Your task to perform on an android device: Search for hotels in Seattle Image 0: 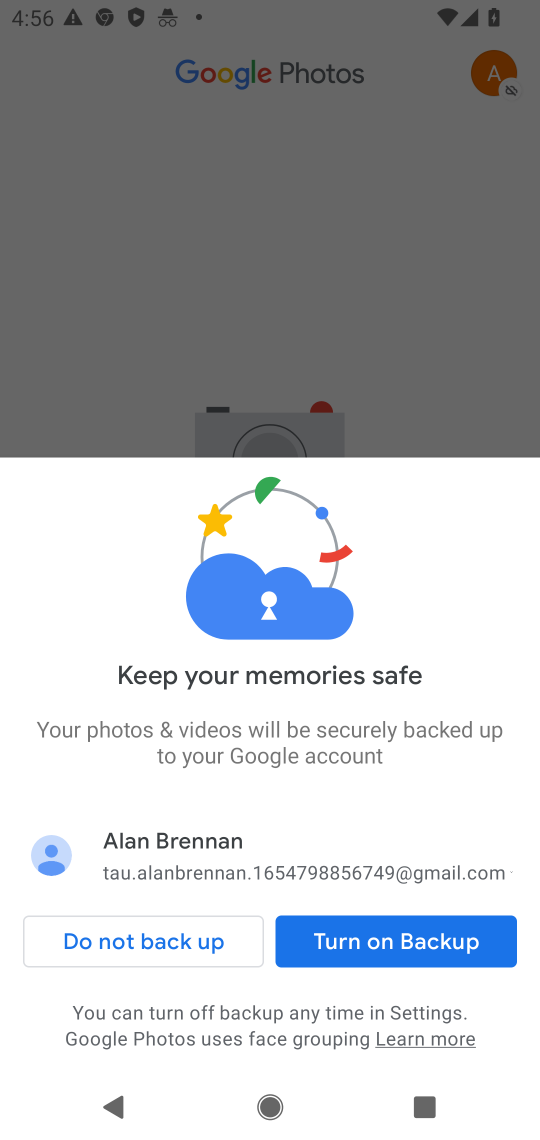
Step 0: press home button
Your task to perform on an android device: Search for hotels in Seattle Image 1: 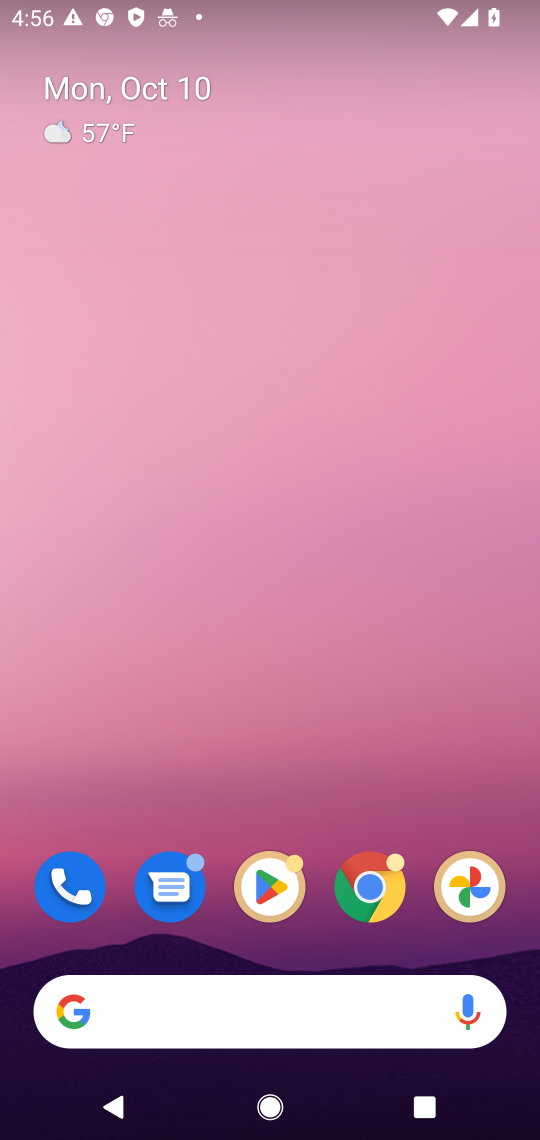
Step 1: click (389, 890)
Your task to perform on an android device: Search for hotels in Seattle Image 2: 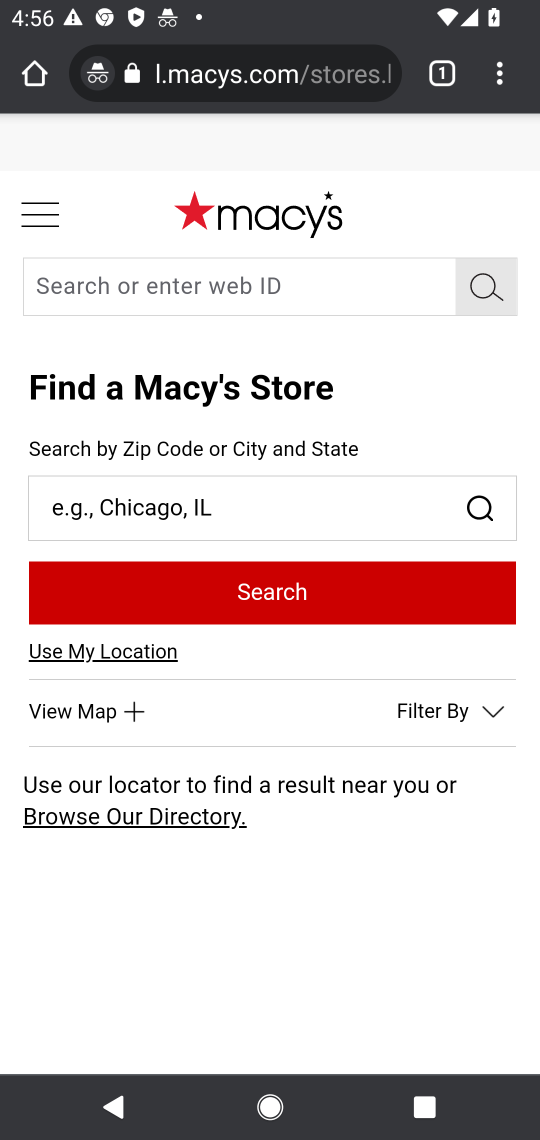
Step 2: click (201, 76)
Your task to perform on an android device: Search for hotels in Seattle Image 3: 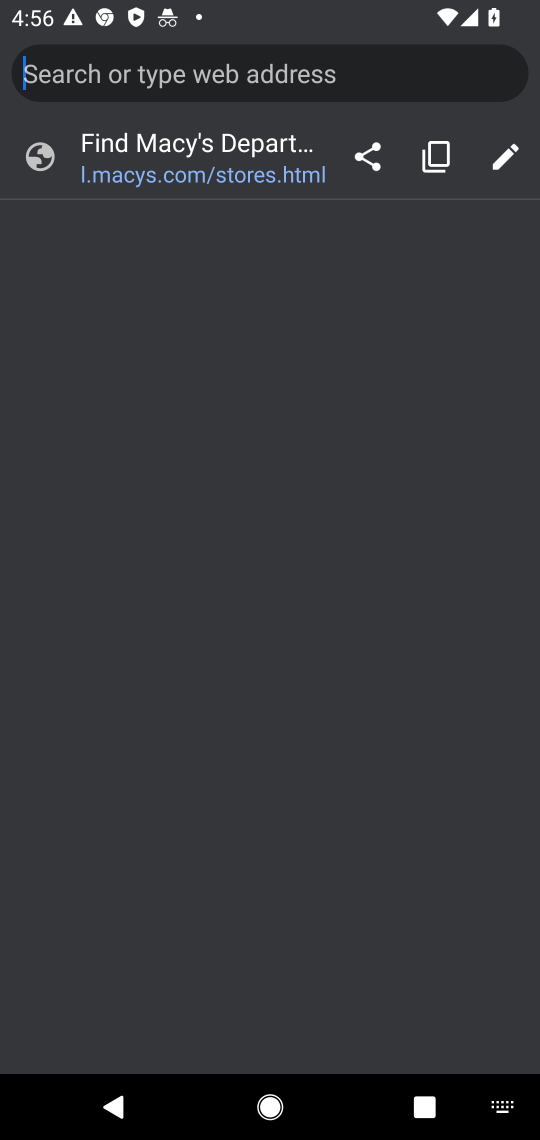
Step 3: type "hotels in seattle"
Your task to perform on an android device: Search for hotels in Seattle Image 4: 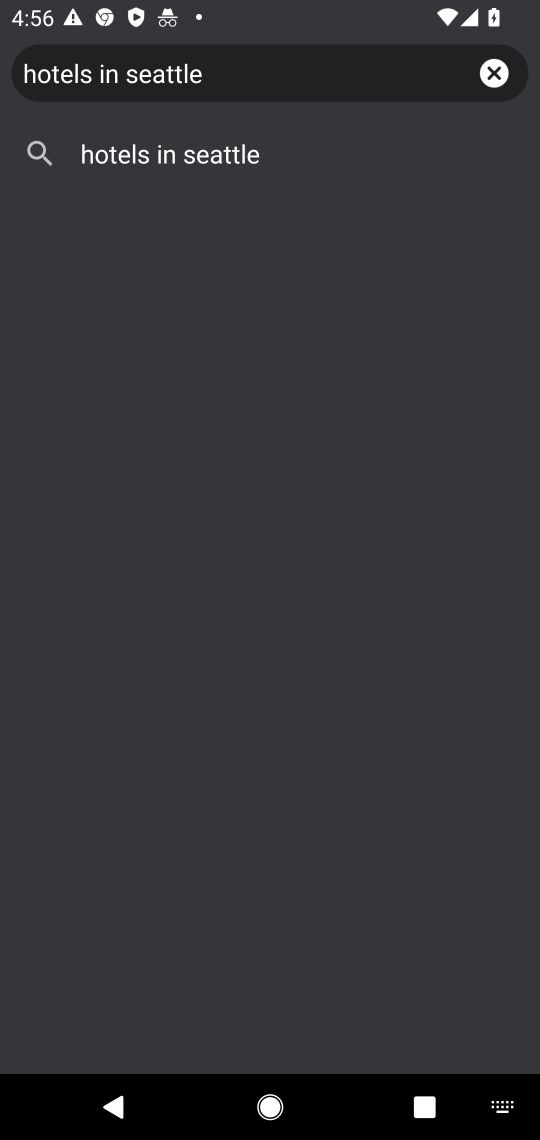
Step 4: click (320, 150)
Your task to perform on an android device: Search for hotels in Seattle Image 5: 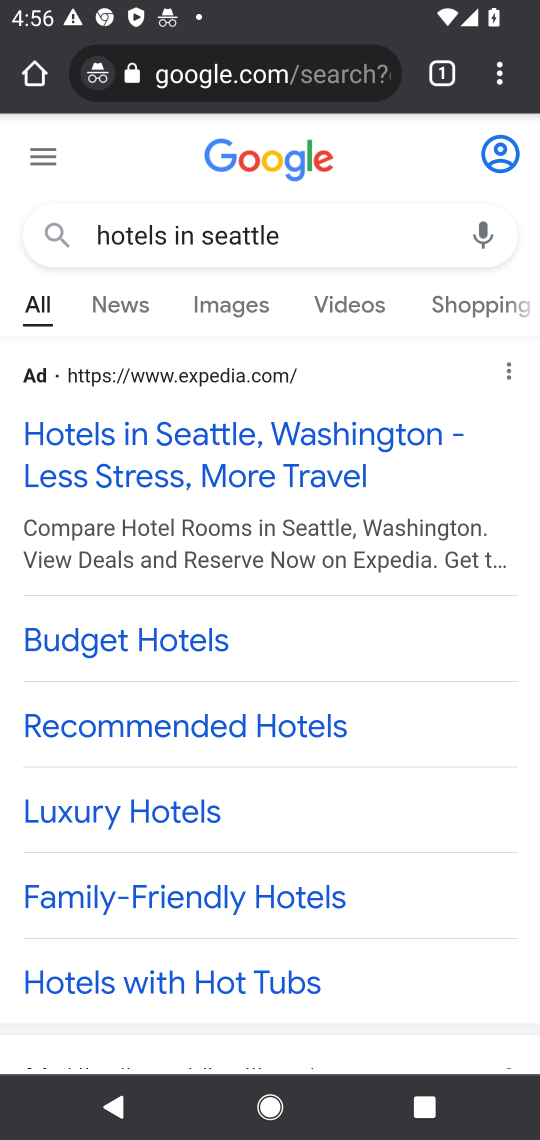
Step 5: click (395, 460)
Your task to perform on an android device: Search for hotels in Seattle Image 6: 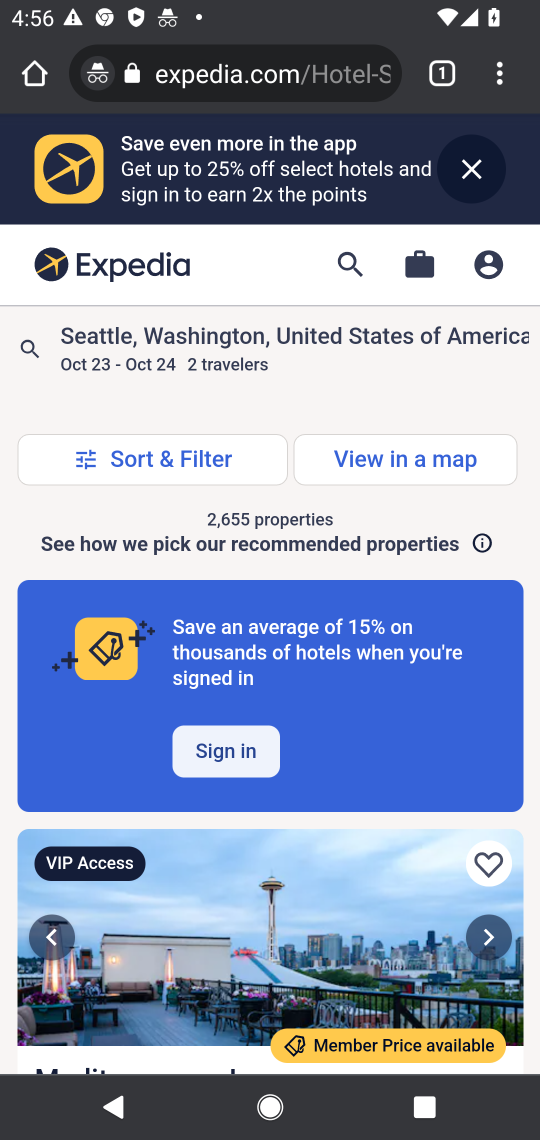
Step 6: task complete